Your task to perform on an android device: check out phone information Image 0: 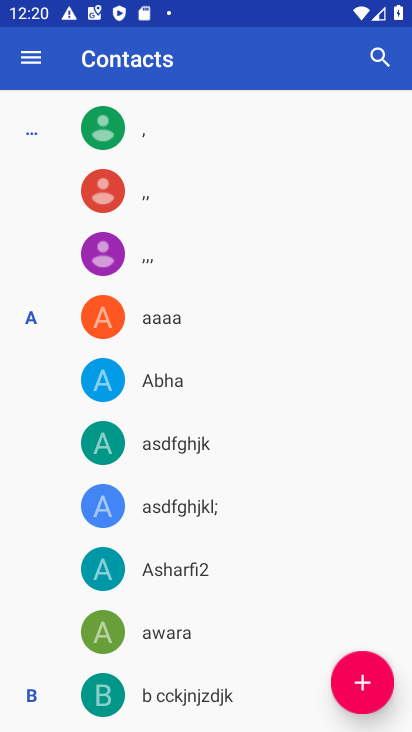
Step 0: press home button
Your task to perform on an android device: check out phone information Image 1: 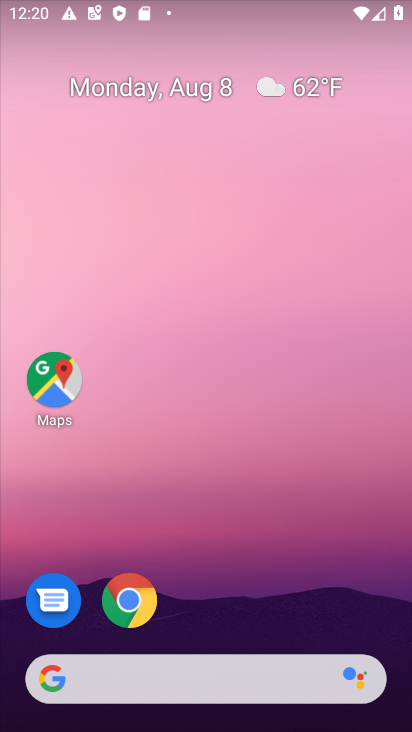
Step 1: drag from (206, 616) to (208, 151)
Your task to perform on an android device: check out phone information Image 2: 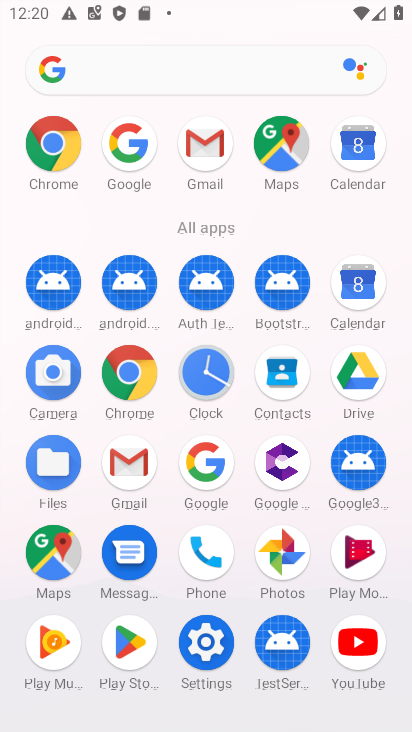
Step 2: click (201, 629)
Your task to perform on an android device: check out phone information Image 3: 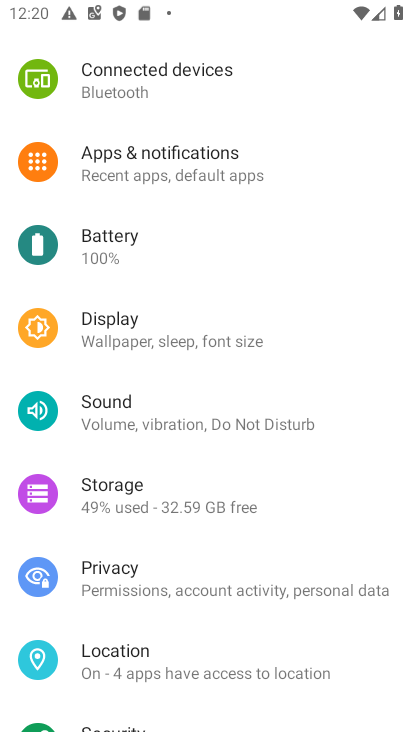
Step 3: drag from (184, 640) to (170, 184)
Your task to perform on an android device: check out phone information Image 4: 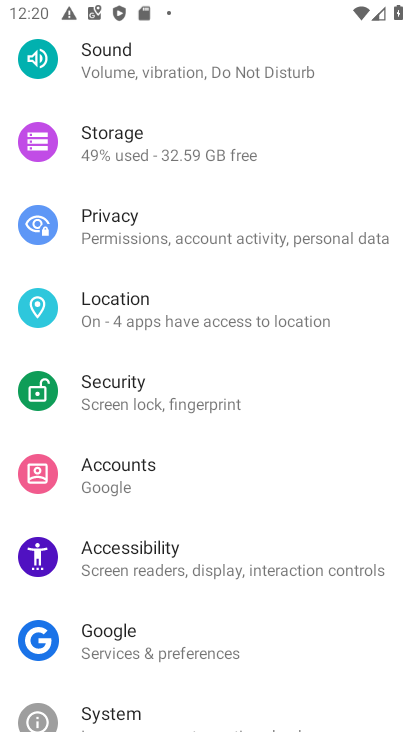
Step 4: drag from (183, 685) to (155, 336)
Your task to perform on an android device: check out phone information Image 5: 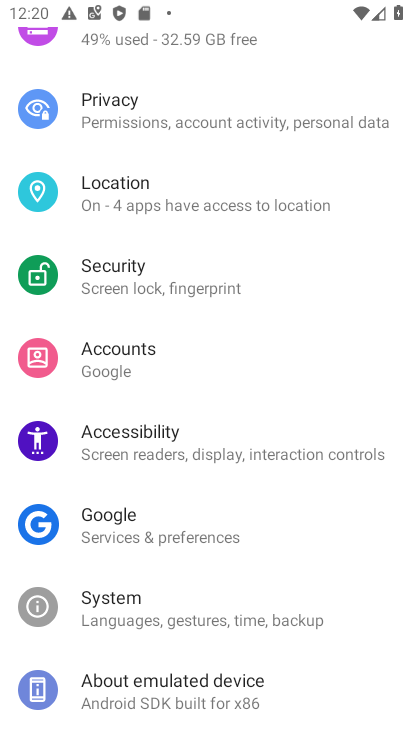
Step 5: click (151, 685)
Your task to perform on an android device: check out phone information Image 6: 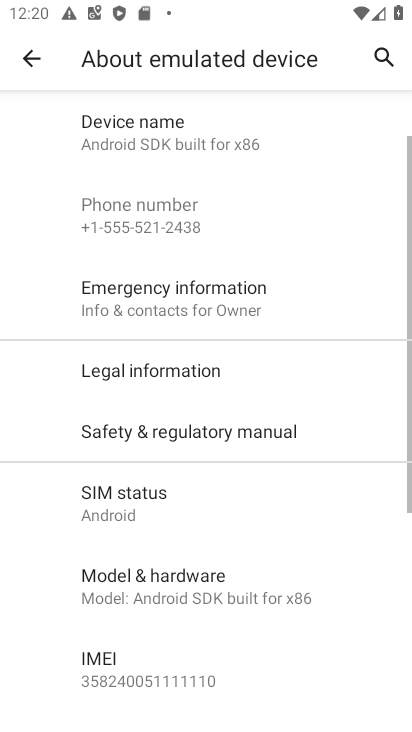
Step 6: task complete